Your task to perform on an android device: Do I have any events today? Image 0: 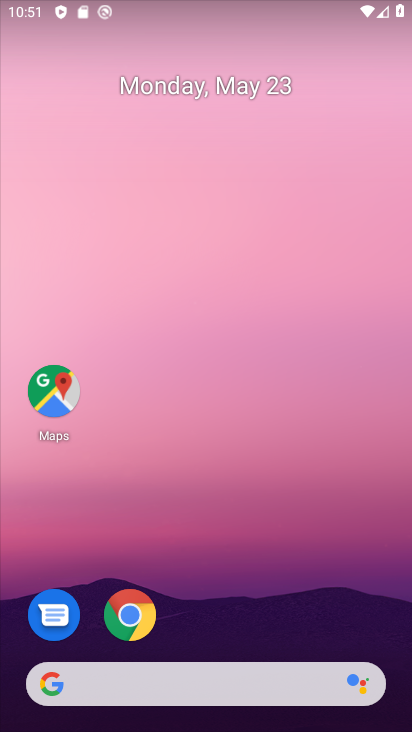
Step 0: click (169, 95)
Your task to perform on an android device: Do I have any events today? Image 1: 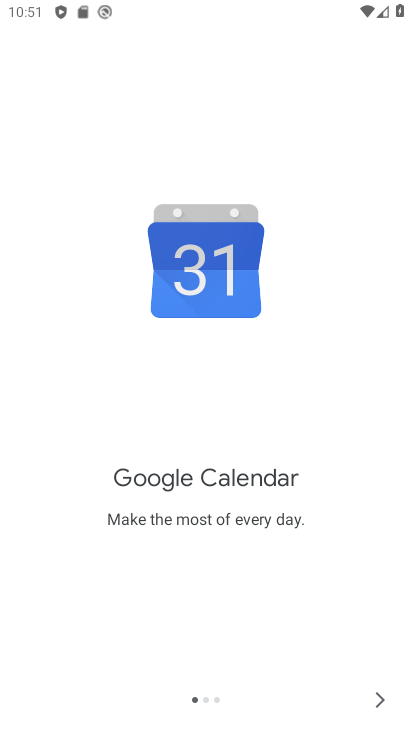
Step 1: click (373, 699)
Your task to perform on an android device: Do I have any events today? Image 2: 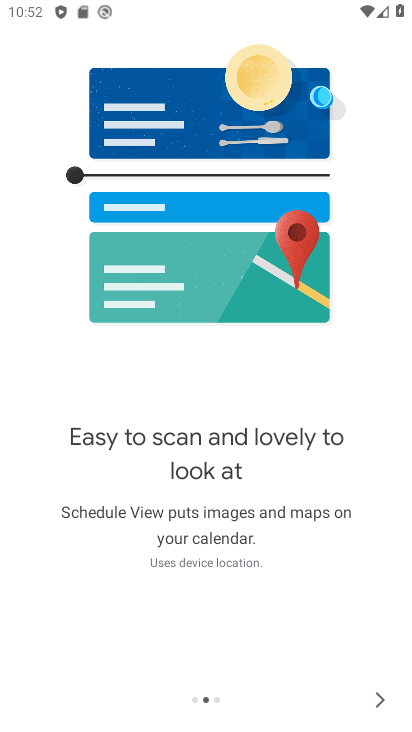
Step 2: click (375, 698)
Your task to perform on an android device: Do I have any events today? Image 3: 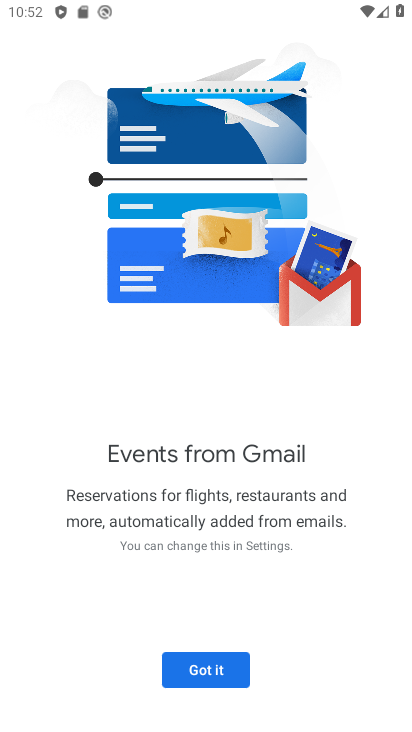
Step 3: click (241, 685)
Your task to perform on an android device: Do I have any events today? Image 4: 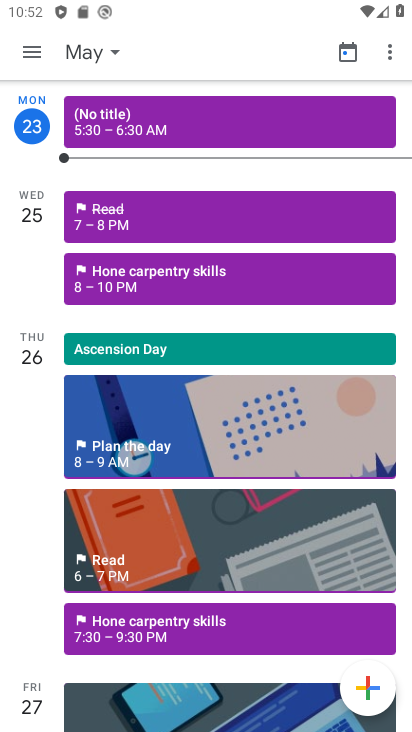
Step 4: click (166, 116)
Your task to perform on an android device: Do I have any events today? Image 5: 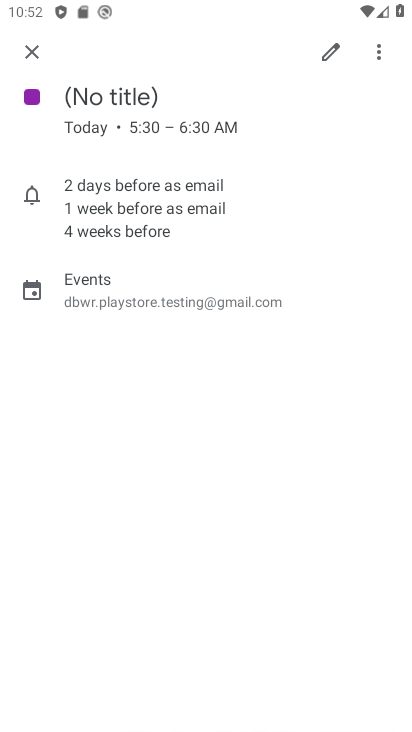
Step 5: task complete